Your task to perform on an android device: turn off picture-in-picture Image 0: 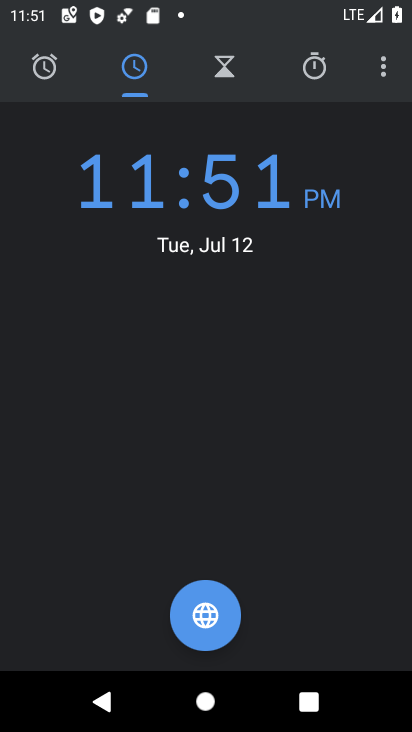
Step 0: press home button
Your task to perform on an android device: turn off picture-in-picture Image 1: 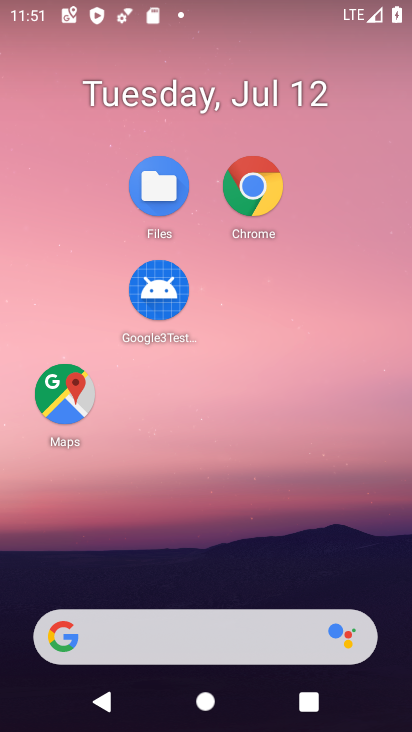
Step 1: drag from (203, 596) to (209, 149)
Your task to perform on an android device: turn off picture-in-picture Image 2: 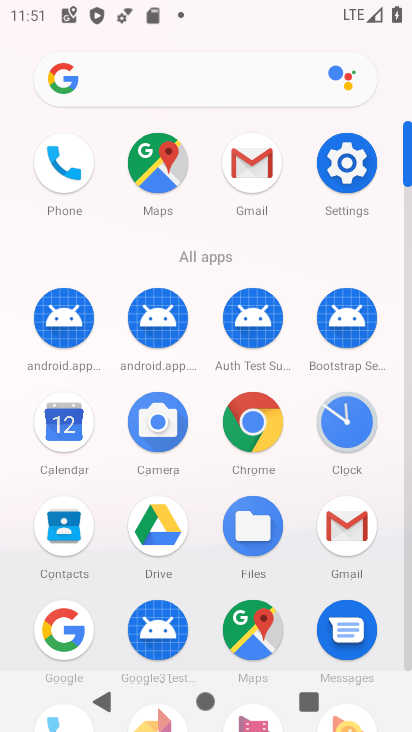
Step 2: click (367, 178)
Your task to perform on an android device: turn off picture-in-picture Image 3: 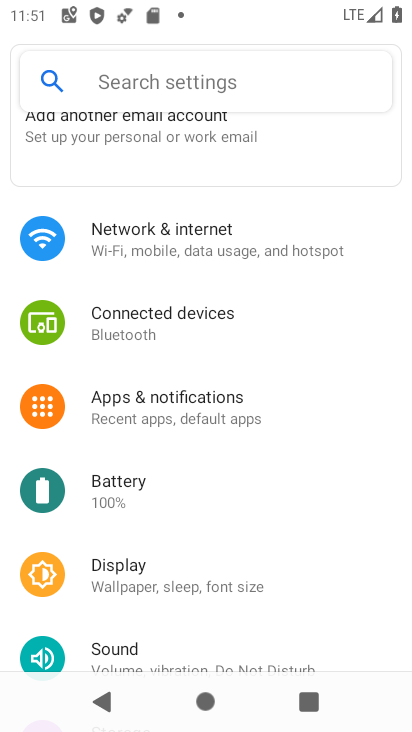
Step 3: click (136, 401)
Your task to perform on an android device: turn off picture-in-picture Image 4: 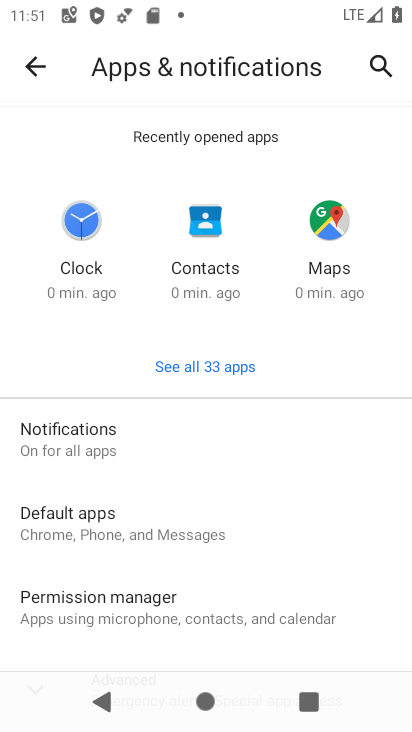
Step 4: drag from (132, 526) to (132, 105)
Your task to perform on an android device: turn off picture-in-picture Image 5: 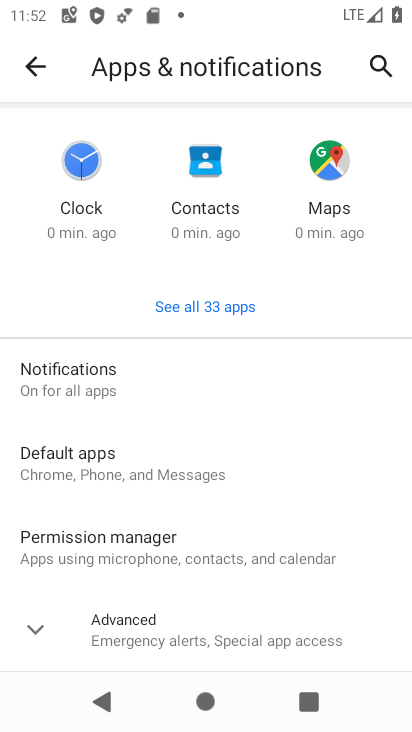
Step 5: click (198, 619)
Your task to perform on an android device: turn off picture-in-picture Image 6: 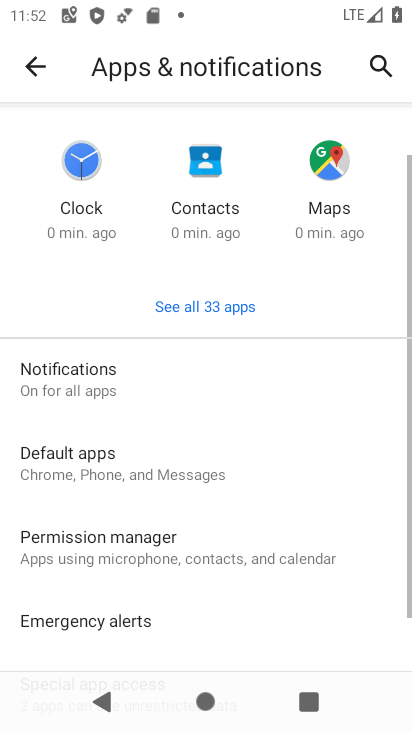
Step 6: drag from (198, 619) to (184, 411)
Your task to perform on an android device: turn off picture-in-picture Image 7: 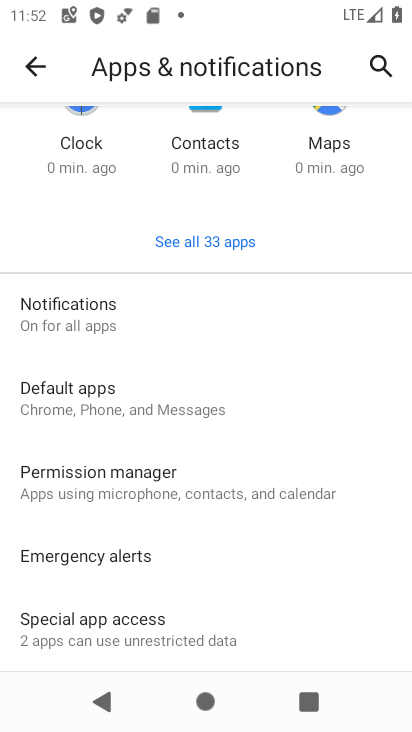
Step 7: click (140, 624)
Your task to perform on an android device: turn off picture-in-picture Image 8: 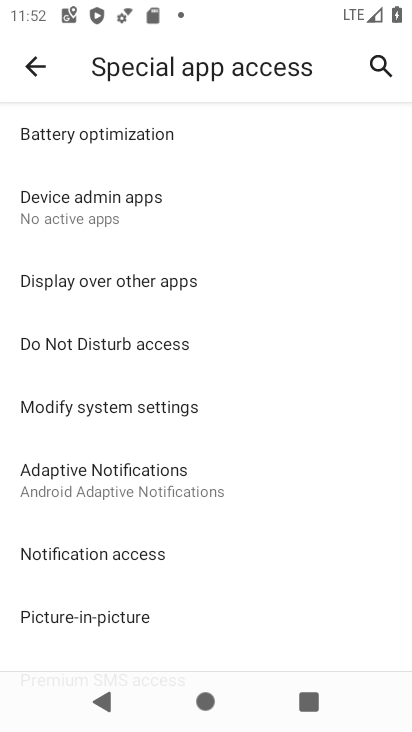
Step 8: click (71, 596)
Your task to perform on an android device: turn off picture-in-picture Image 9: 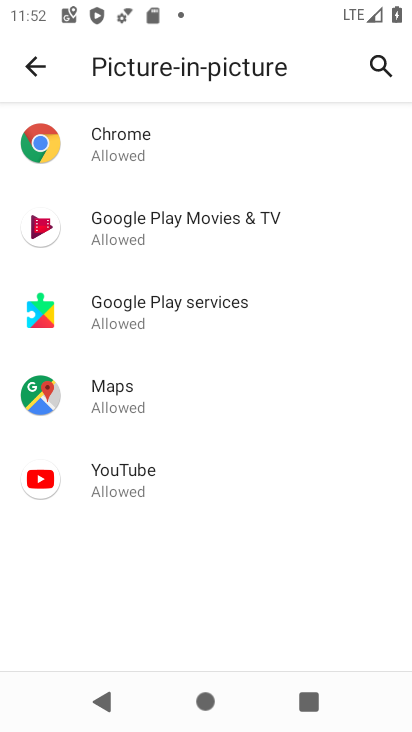
Step 9: task complete